Your task to perform on an android device: open a new tab in the chrome app Image 0: 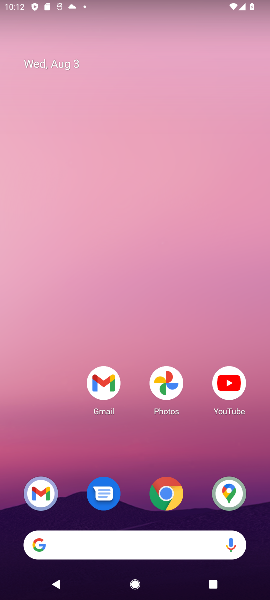
Step 0: press home button
Your task to perform on an android device: open a new tab in the chrome app Image 1: 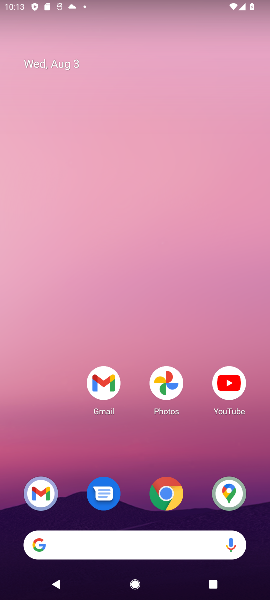
Step 1: click (161, 490)
Your task to perform on an android device: open a new tab in the chrome app Image 2: 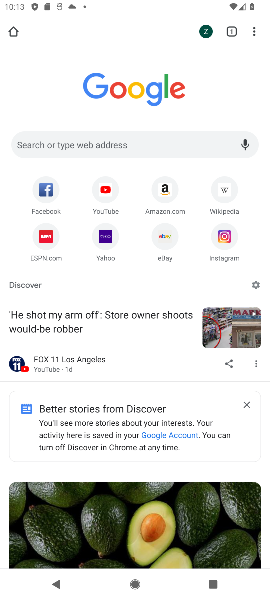
Step 2: click (229, 29)
Your task to perform on an android device: open a new tab in the chrome app Image 3: 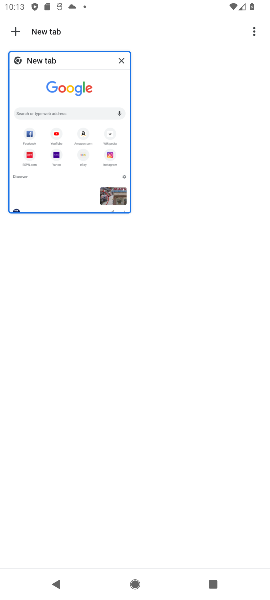
Step 3: click (15, 28)
Your task to perform on an android device: open a new tab in the chrome app Image 4: 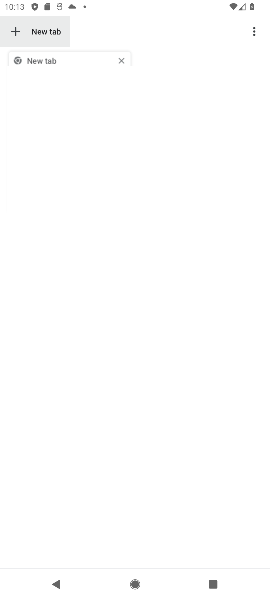
Step 4: task complete